Your task to perform on an android device: delete a single message in the gmail app Image 0: 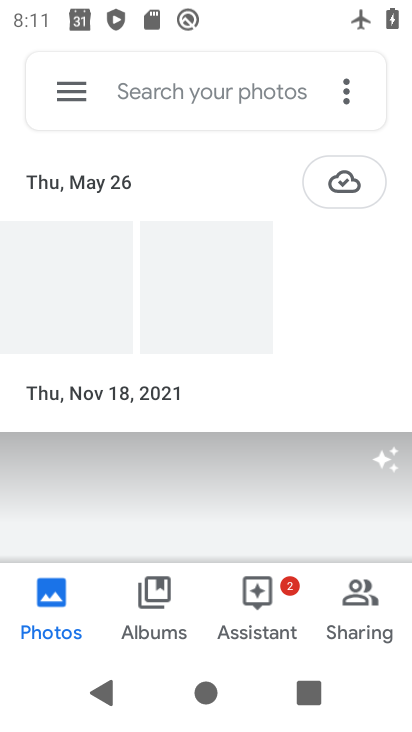
Step 0: drag from (187, 492) to (278, 130)
Your task to perform on an android device: delete a single message in the gmail app Image 1: 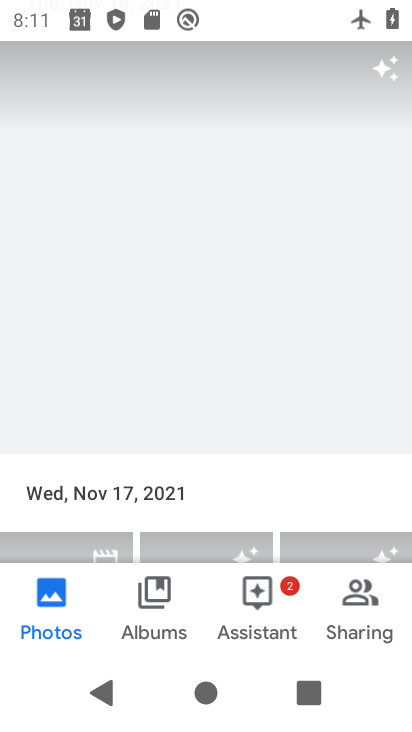
Step 1: press home button
Your task to perform on an android device: delete a single message in the gmail app Image 2: 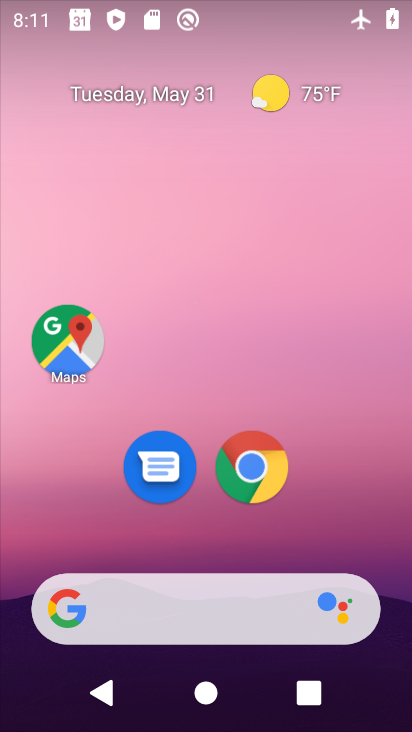
Step 2: drag from (209, 517) to (246, 75)
Your task to perform on an android device: delete a single message in the gmail app Image 3: 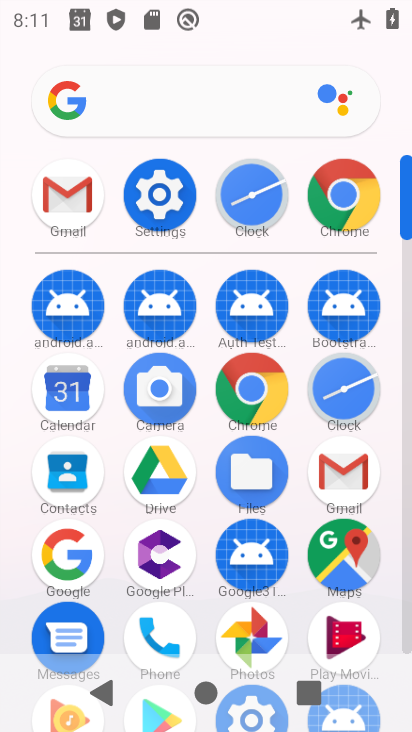
Step 3: click (348, 469)
Your task to perform on an android device: delete a single message in the gmail app Image 4: 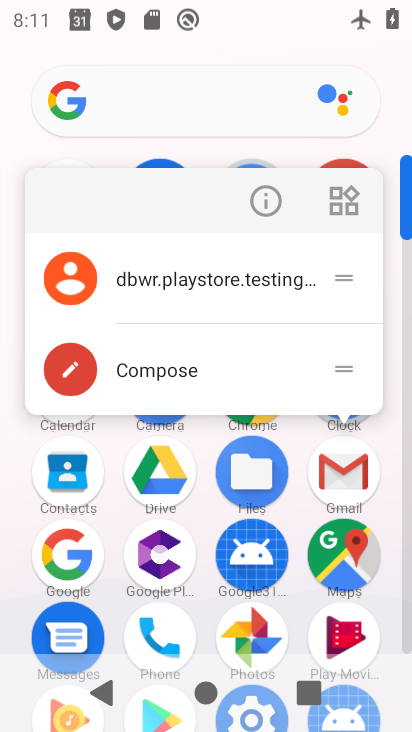
Step 4: click (266, 208)
Your task to perform on an android device: delete a single message in the gmail app Image 5: 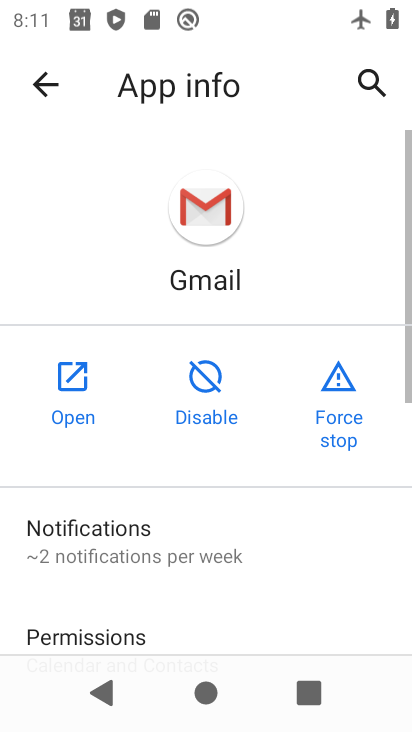
Step 5: click (55, 380)
Your task to perform on an android device: delete a single message in the gmail app Image 6: 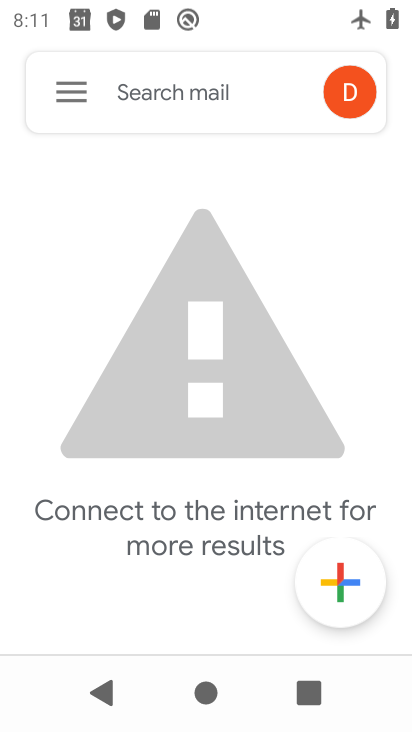
Step 6: click (70, 87)
Your task to perform on an android device: delete a single message in the gmail app Image 7: 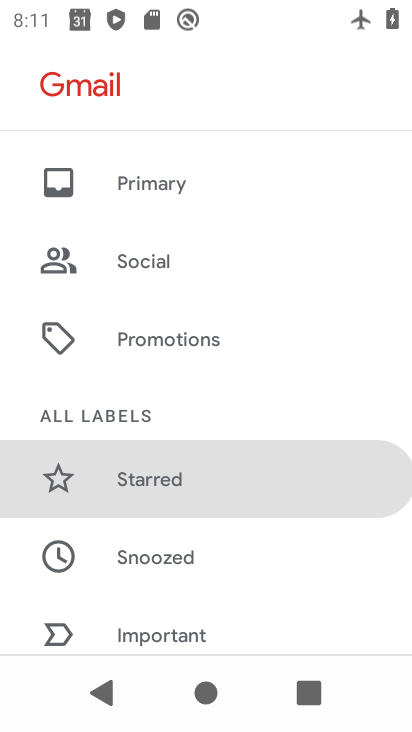
Step 7: click (166, 191)
Your task to perform on an android device: delete a single message in the gmail app Image 8: 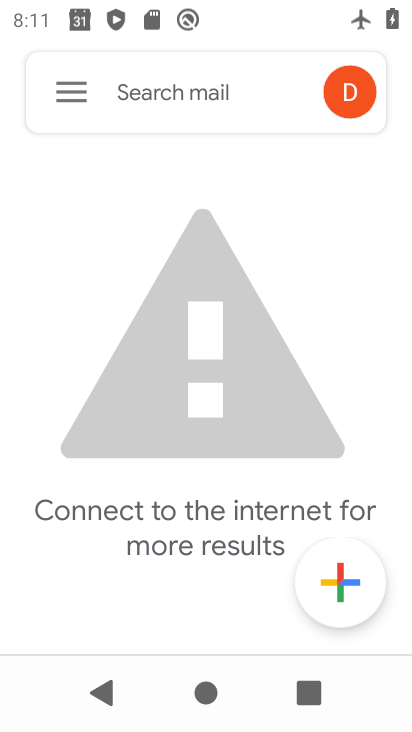
Step 8: task complete